Your task to perform on an android device: Check the weather Image 0: 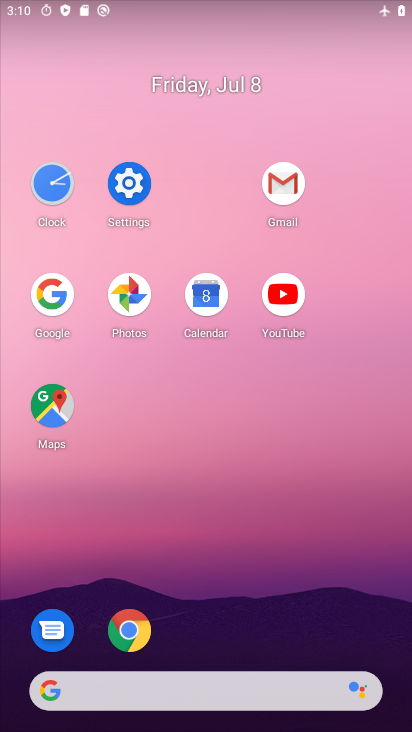
Step 0: click (128, 633)
Your task to perform on an android device: Check the weather Image 1: 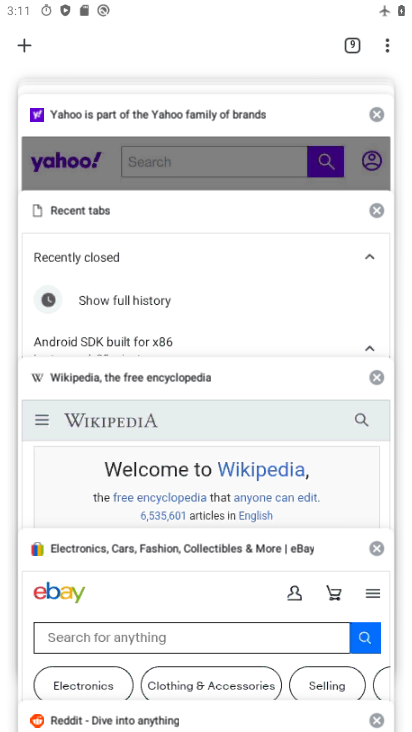
Step 1: click (351, 46)
Your task to perform on an android device: Check the weather Image 2: 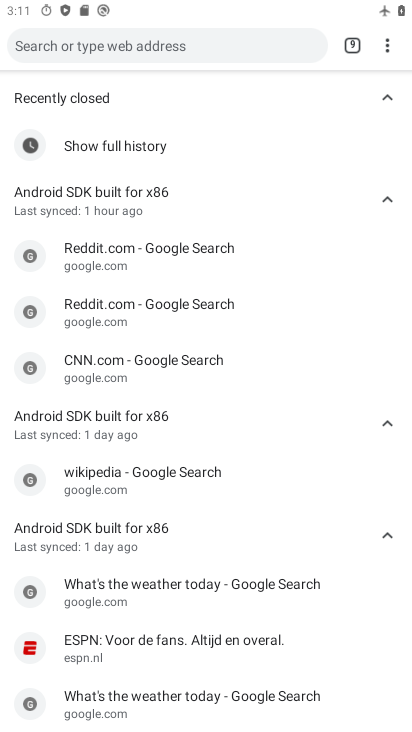
Step 2: click (269, 52)
Your task to perform on an android device: Check the weather Image 3: 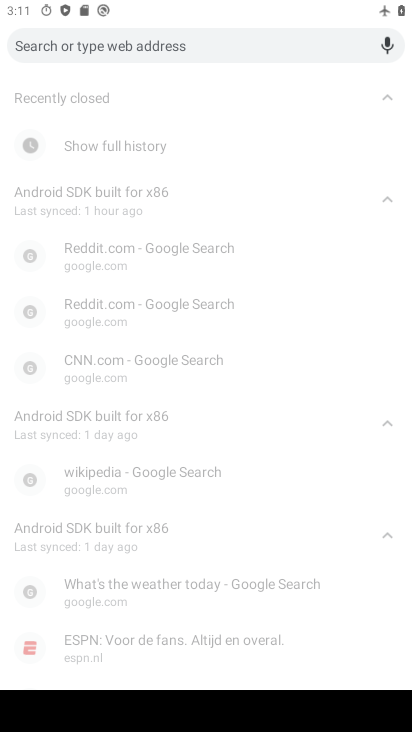
Step 3: type "weather"
Your task to perform on an android device: Check the weather Image 4: 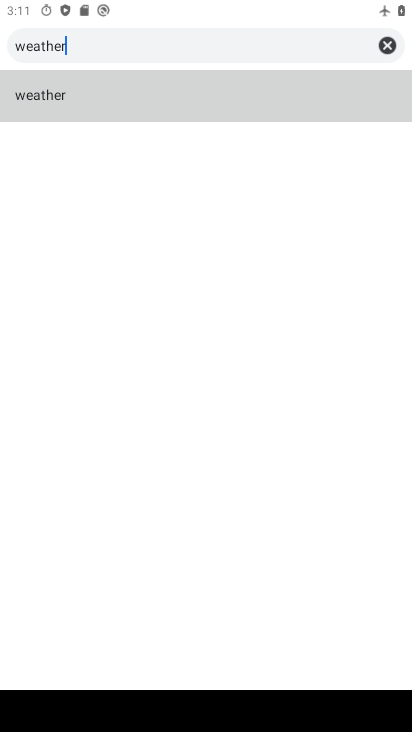
Step 4: click (62, 104)
Your task to perform on an android device: Check the weather Image 5: 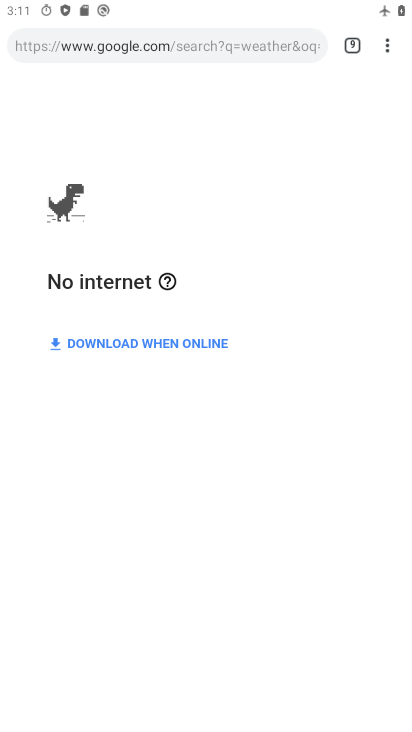
Step 5: task complete